Your task to perform on an android device: Go to CNN.com Image 0: 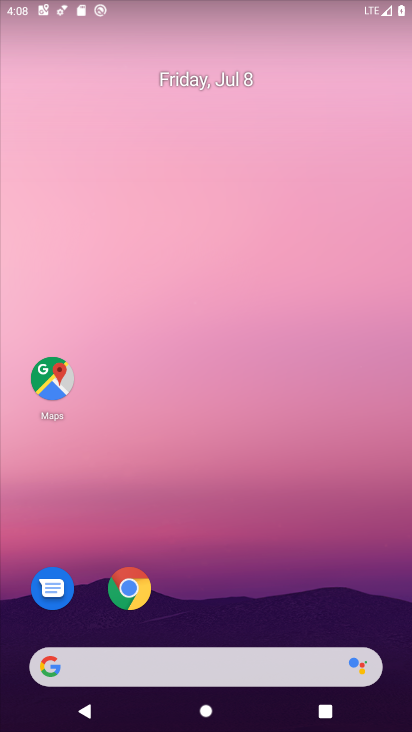
Step 0: click (124, 589)
Your task to perform on an android device: Go to CNN.com Image 1: 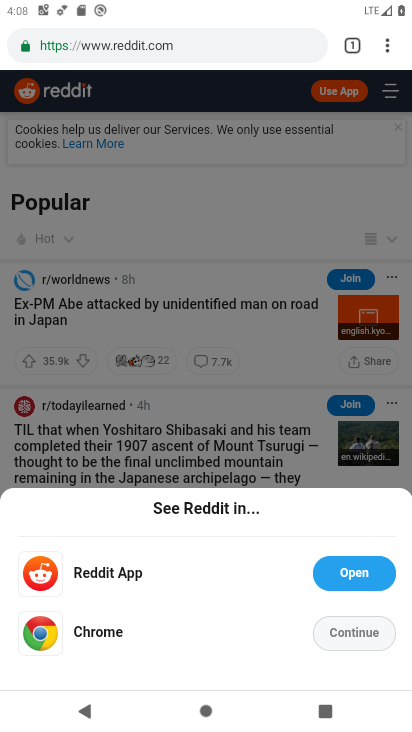
Step 1: click (349, 634)
Your task to perform on an android device: Go to CNN.com Image 2: 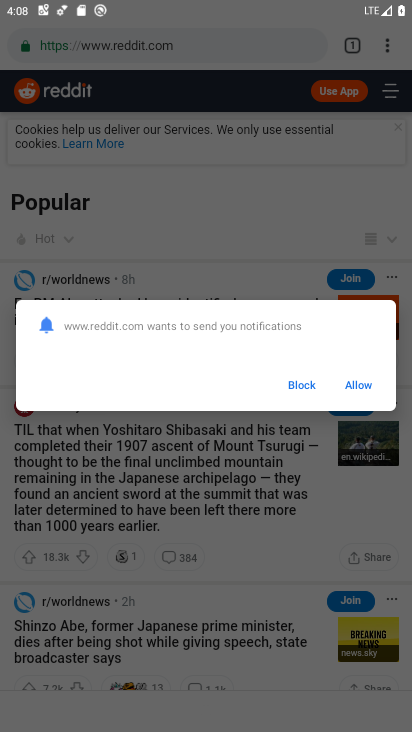
Step 2: click (193, 39)
Your task to perform on an android device: Go to CNN.com Image 3: 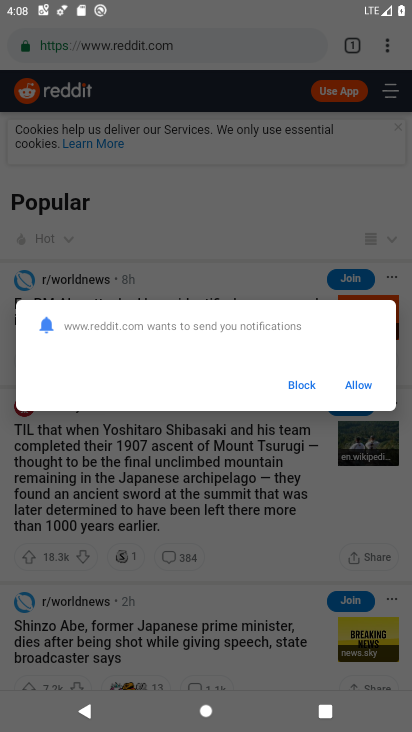
Step 3: click (303, 388)
Your task to perform on an android device: Go to CNN.com Image 4: 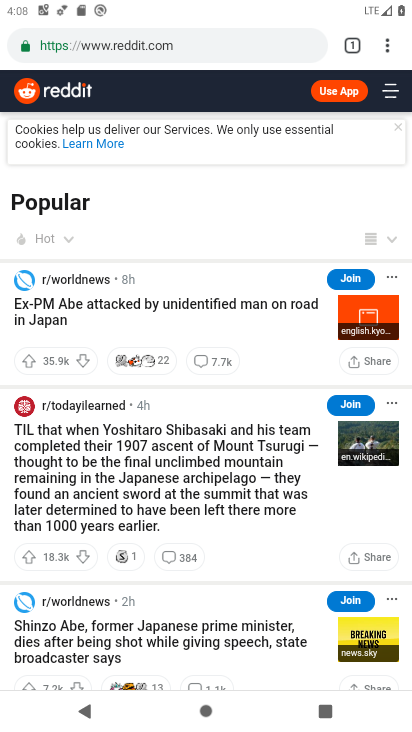
Step 4: click (160, 43)
Your task to perform on an android device: Go to CNN.com Image 5: 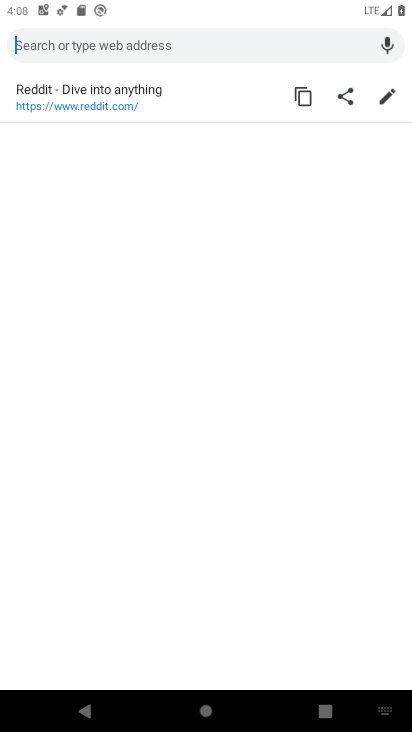
Step 5: type "cnn.com"
Your task to perform on an android device: Go to CNN.com Image 6: 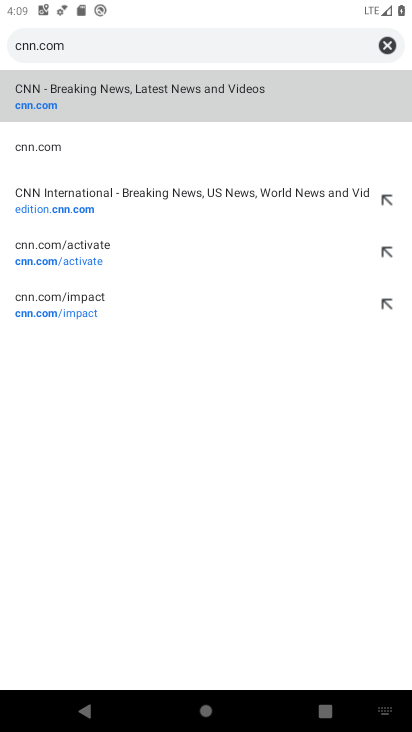
Step 6: click (96, 106)
Your task to perform on an android device: Go to CNN.com Image 7: 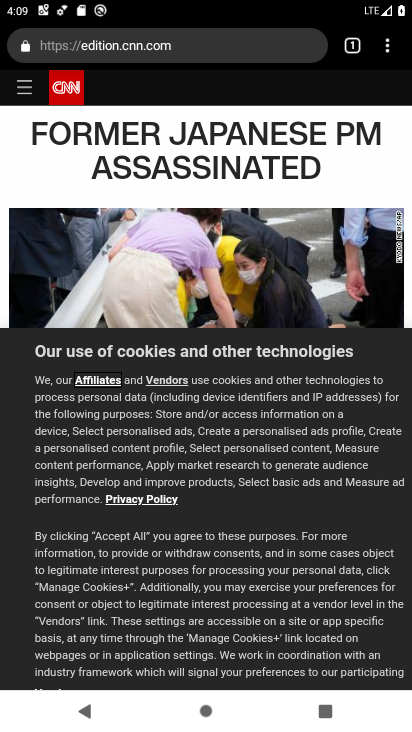
Step 7: task complete